Your task to perform on an android device: change timer sound Image 0: 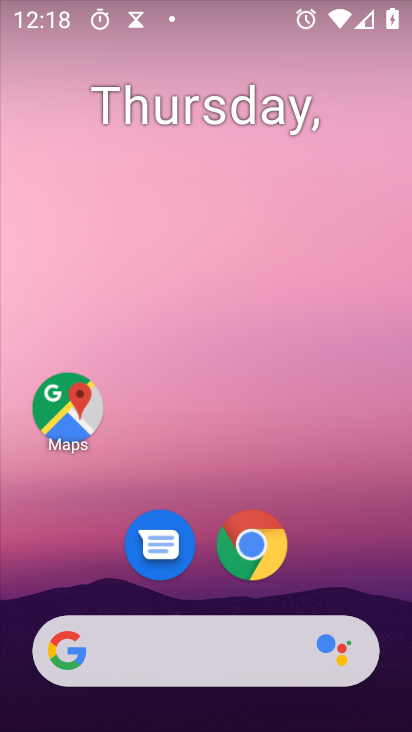
Step 0: press home button
Your task to perform on an android device: change timer sound Image 1: 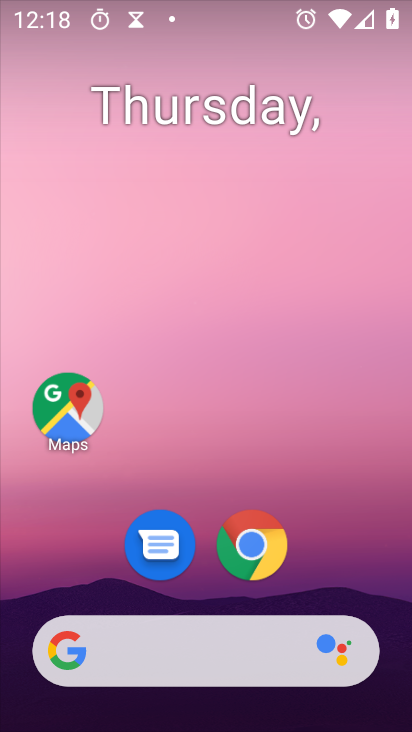
Step 1: drag from (229, 635) to (385, 112)
Your task to perform on an android device: change timer sound Image 2: 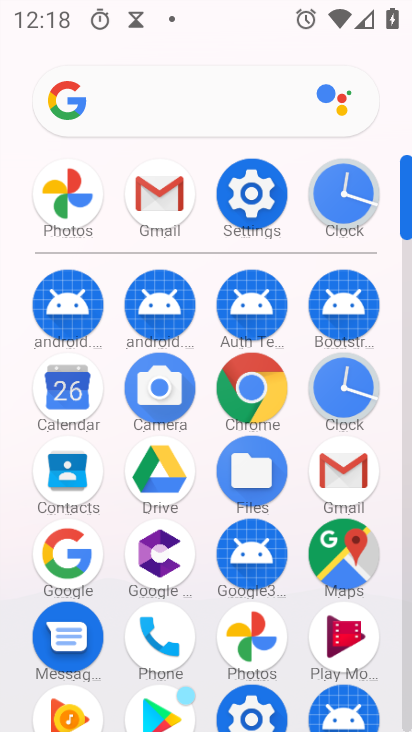
Step 2: click (342, 394)
Your task to perform on an android device: change timer sound Image 3: 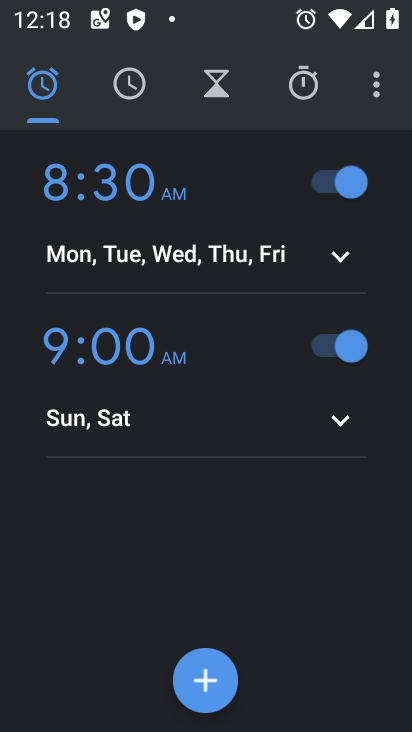
Step 3: click (378, 86)
Your task to perform on an android device: change timer sound Image 4: 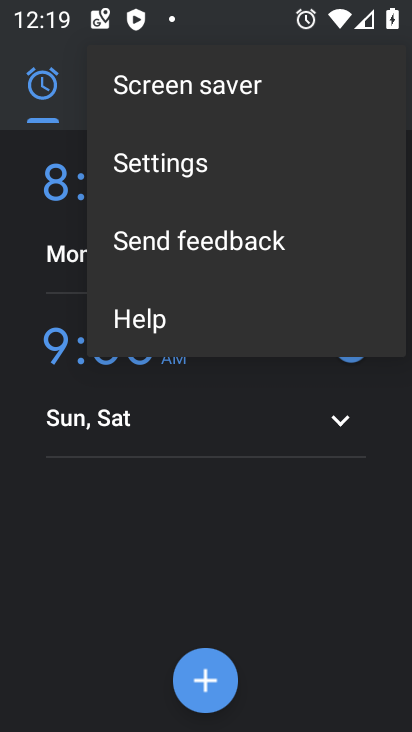
Step 4: click (172, 165)
Your task to perform on an android device: change timer sound Image 5: 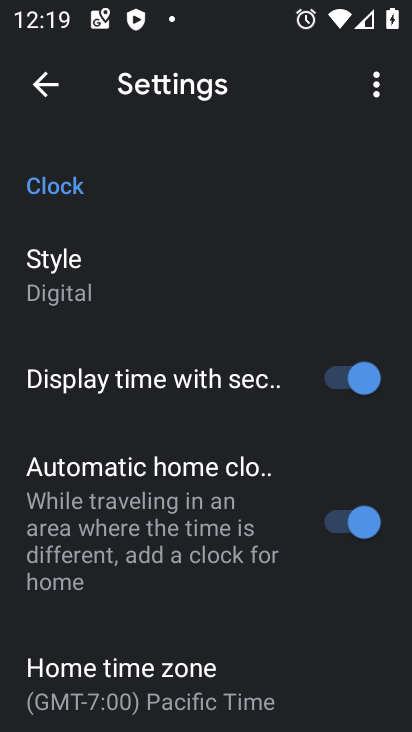
Step 5: drag from (198, 659) to (307, 54)
Your task to perform on an android device: change timer sound Image 6: 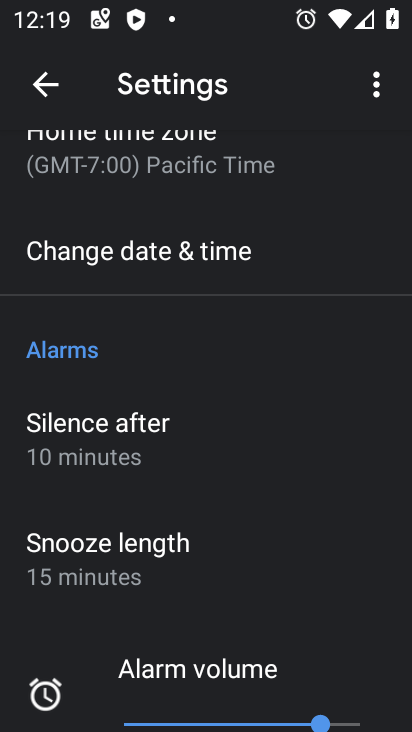
Step 6: drag from (213, 651) to (388, 24)
Your task to perform on an android device: change timer sound Image 7: 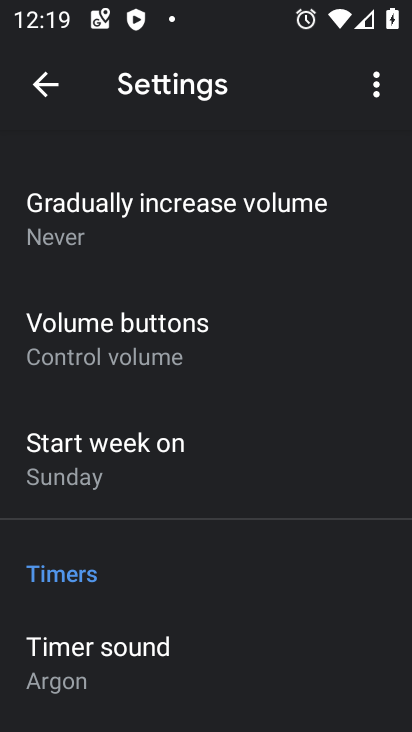
Step 7: click (147, 650)
Your task to perform on an android device: change timer sound Image 8: 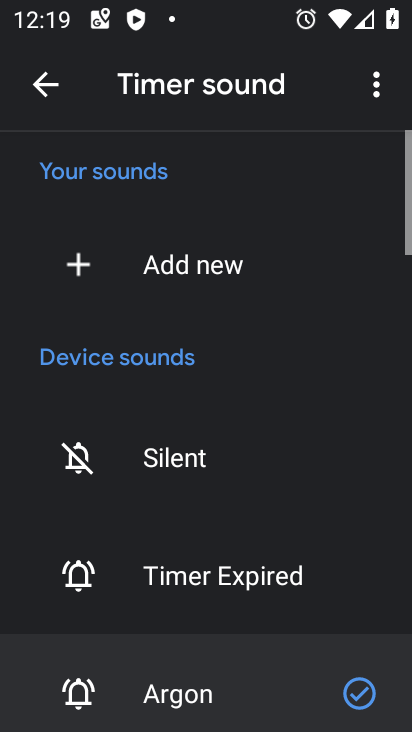
Step 8: drag from (273, 523) to (403, 103)
Your task to perform on an android device: change timer sound Image 9: 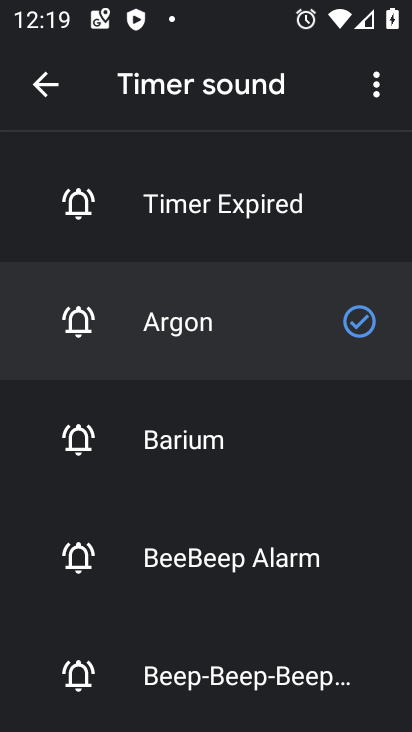
Step 9: click (261, 561)
Your task to perform on an android device: change timer sound Image 10: 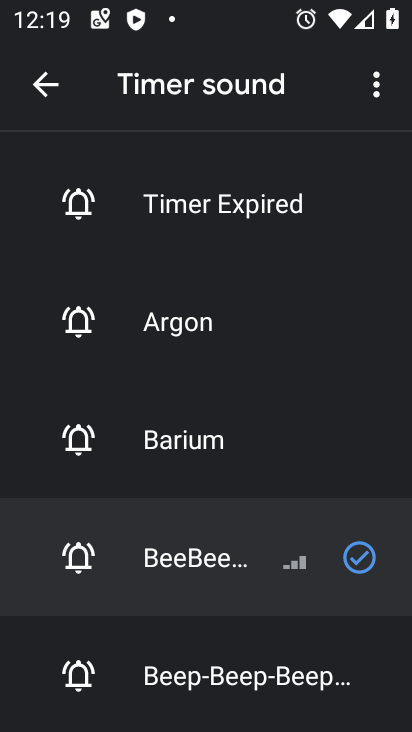
Step 10: task complete